Your task to perform on an android device: Open the Play Movies app and select the watchlist tab. Image 0: 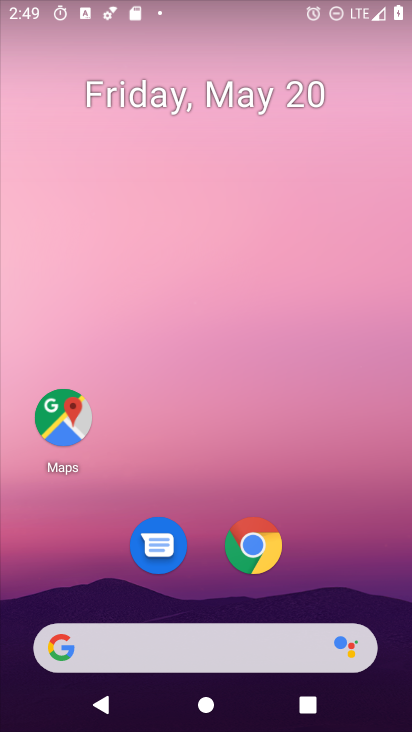
Step 0: drag from (357, 612) to (344, 4)
Your task to perform on an android device: Open the Play Movies app and select the watchlist tab. Image 1: 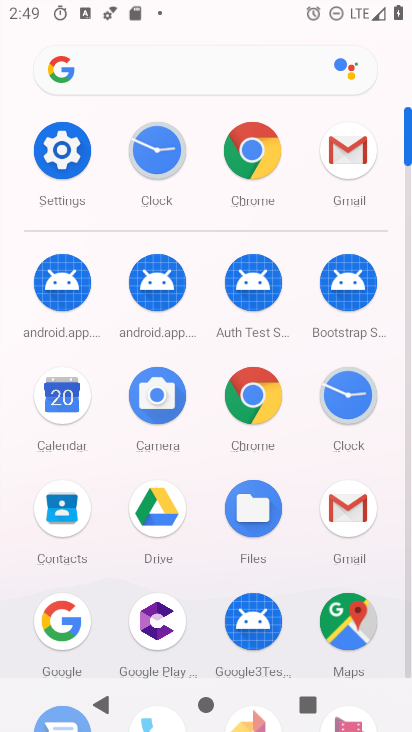
Step 1: drag from (280, 561) to (292, 119)
Your task to perform on an android device: Open the Play Movies app and select the watchlist tab. Image 2: 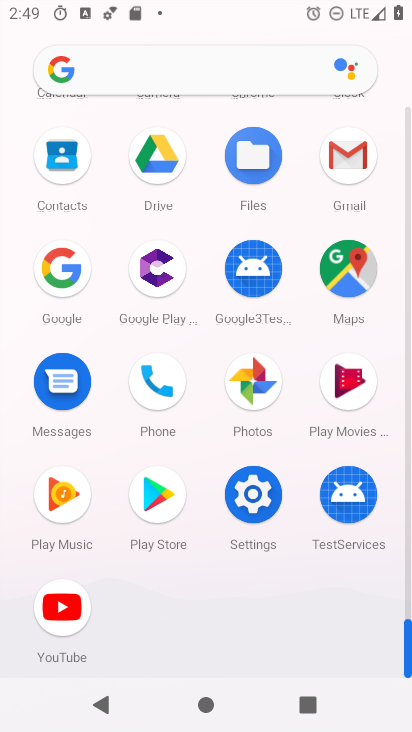
Step 2: click (359, 388)
Your task to perform on an android device: Open the Play Movies app and select the watchlist tab. Image 3: 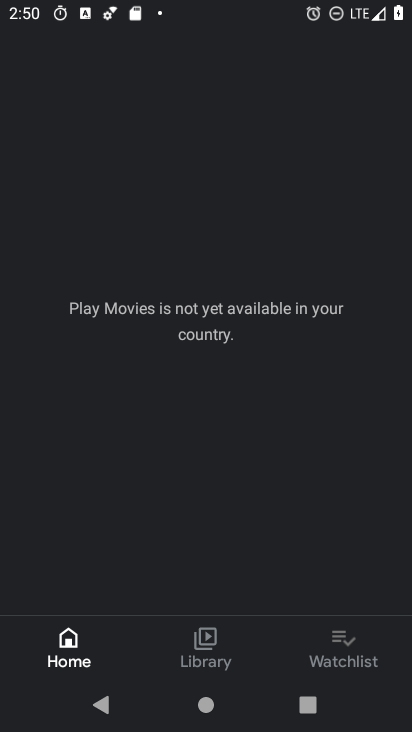
Step 3: click (324, 642)
Your task to perform on an android device: Open the Play Movies app and select the watchlist tab. Image 4: 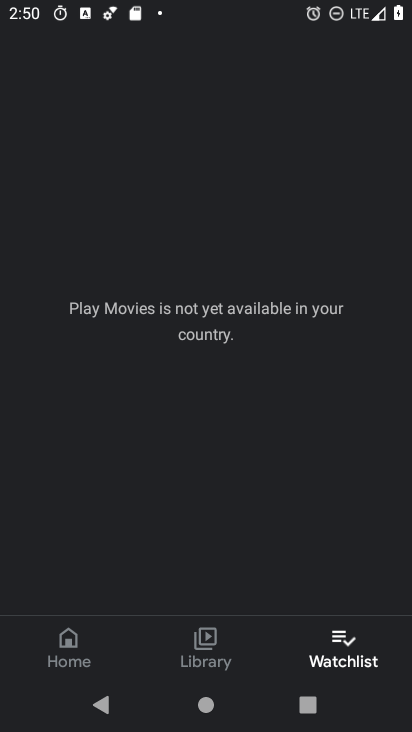
Step 4: task complete